Your task to perform on an android device: Find coffee shops on Maps Image 0: 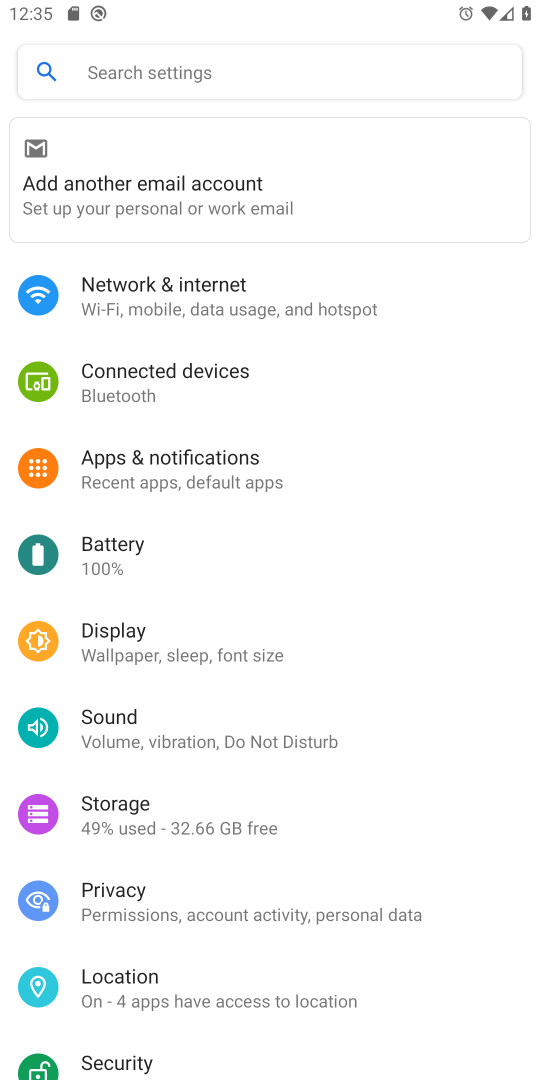
Step 0: press home button
Your task to perform on an android device: Find coffee shops on Maps Image 1: 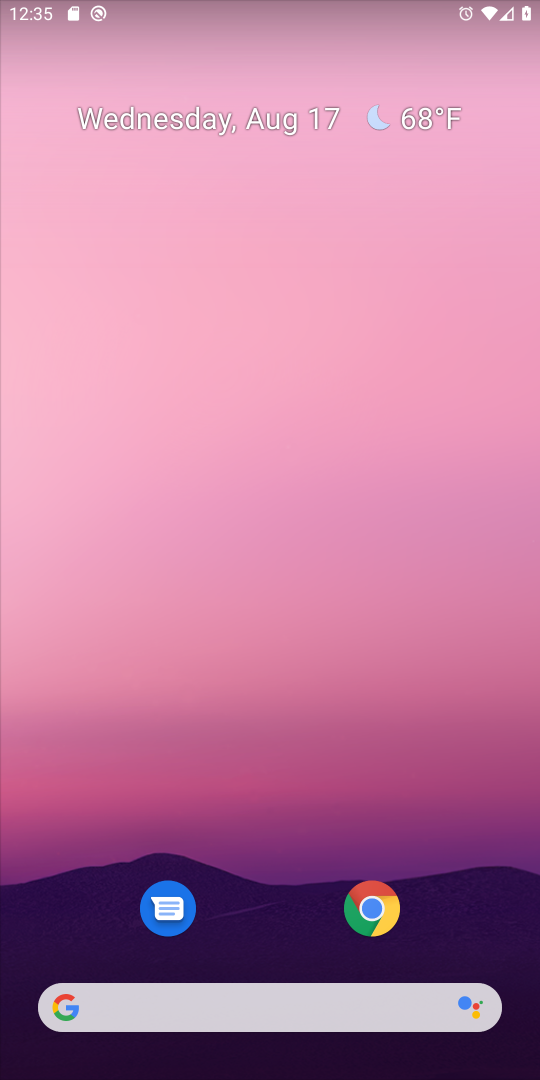
Step 1: drag from (273, 901) to (273, 449)
Your task to perform on an android device: Find coffee shops on Maps Image 2: 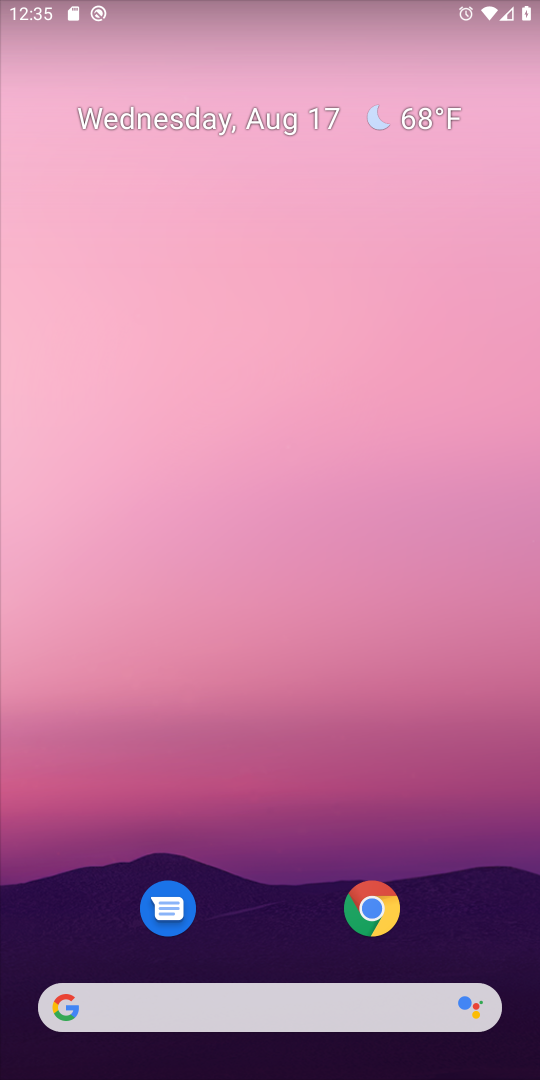
Step 2: drag from (283, 901) to (284, 267)
Your task to perform on an android device: Find coffee shops on Maps Image 3: 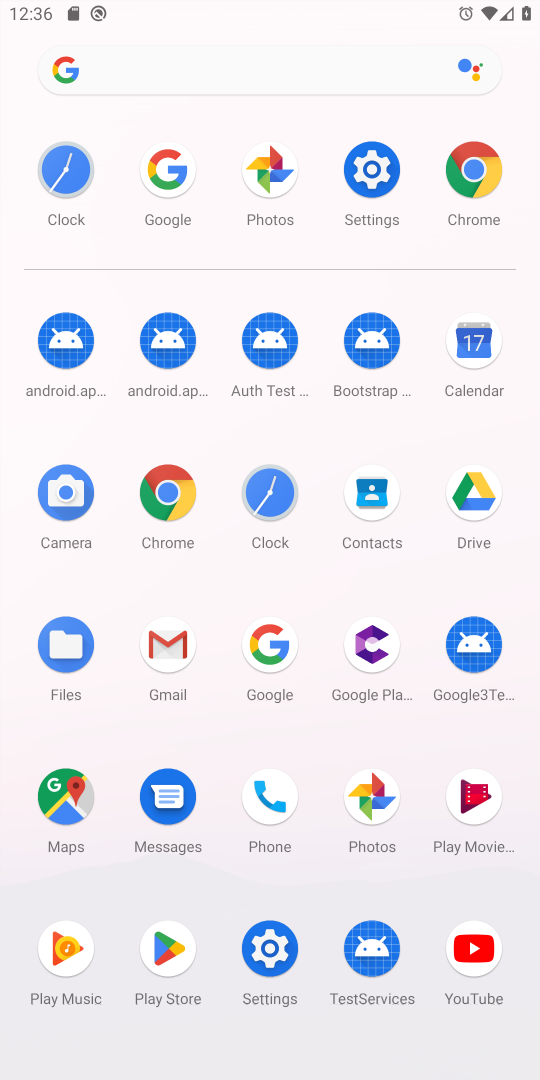
Step 3: click (76, 786)
Your task to perform on an android device: Find coffee shops on Maps Image 4: 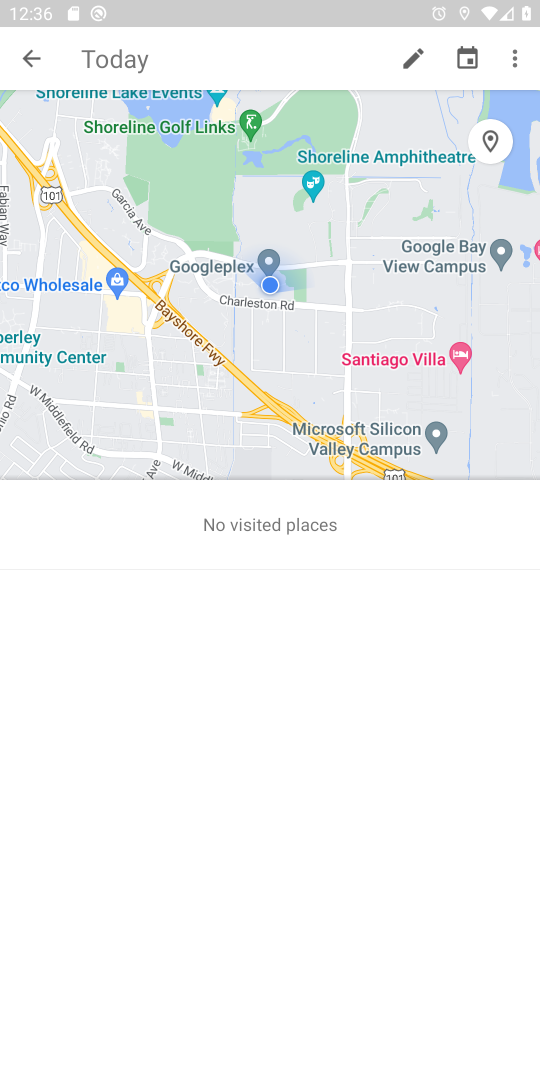
Step 4: click (27, 58)
Your task to perform on an android device: Find coffee shops on Maps Image 5: 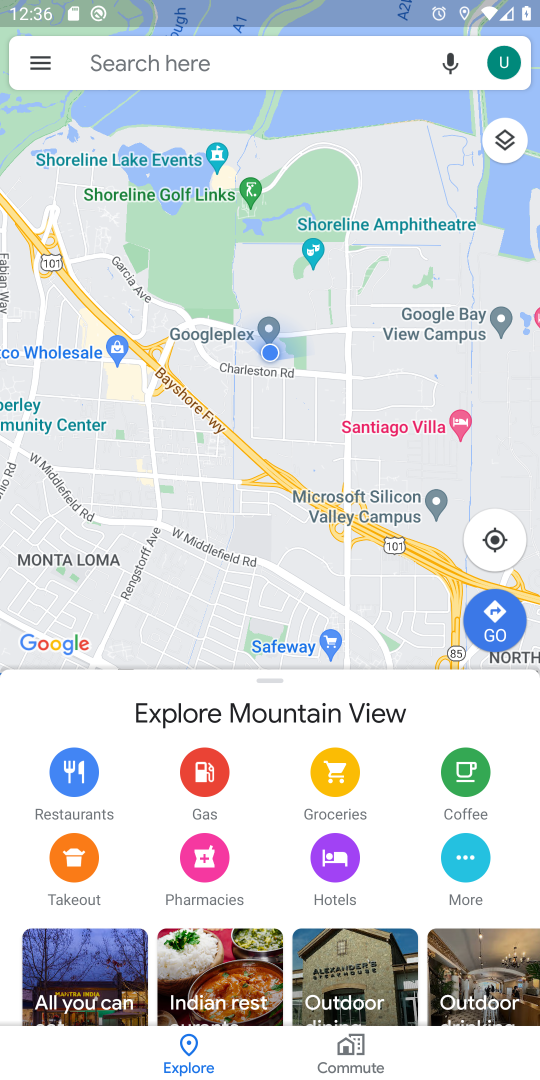
Step 5: click (323, 53)
Your task to perform on an android device: Find coffee shops on Maps Image 6: 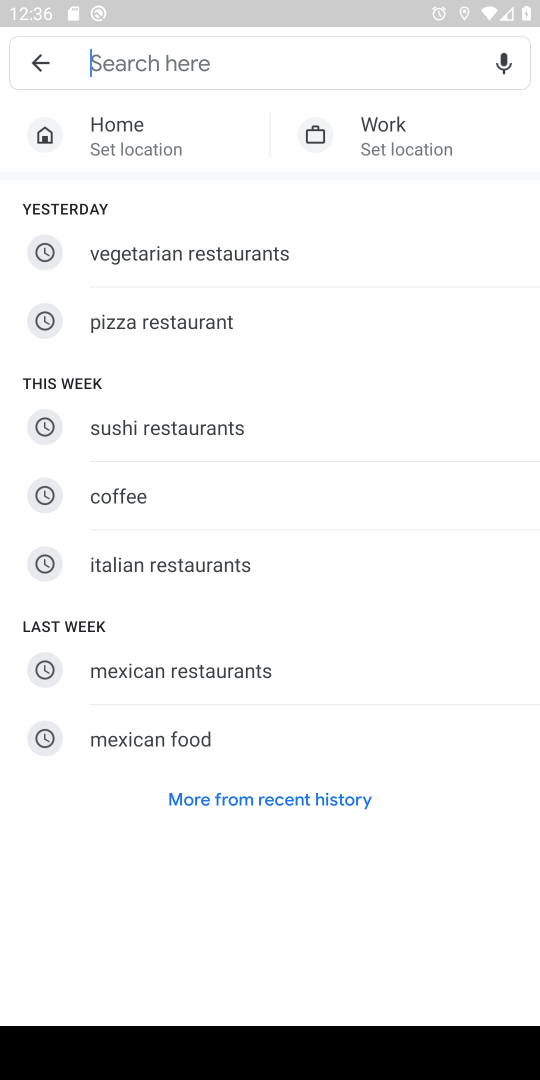
Step 6: type "coffee shops"
Your task to perform on an android device: Find coffee shops on Maps Image 7: 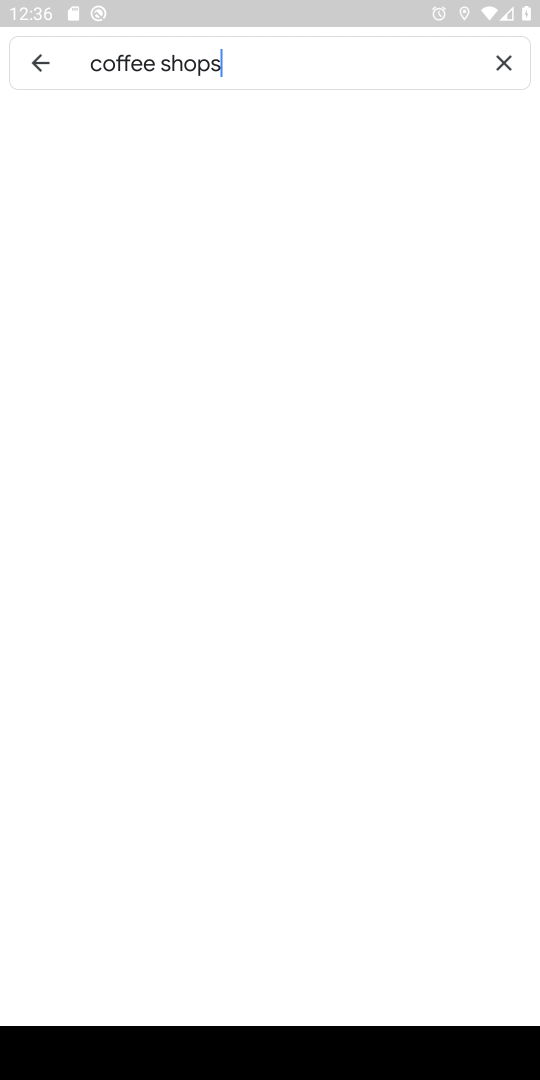
Step 7: type ""
Your task to perform on an android device: Find coffee shops on Maps Image 8: 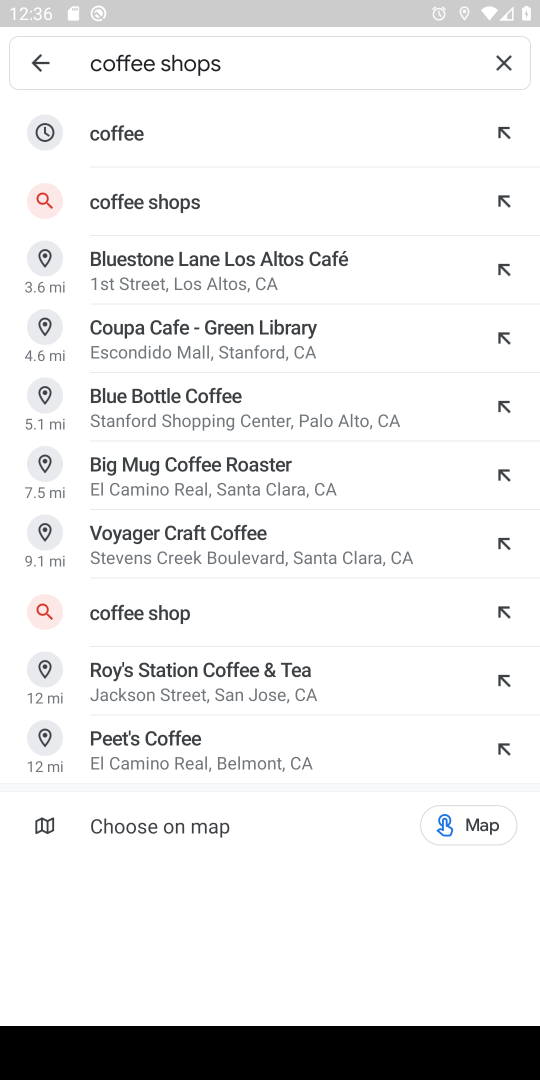
Step 8: click (163, 210)
Your task to perform on an android device: Find coffee shops on Maps Image 9: 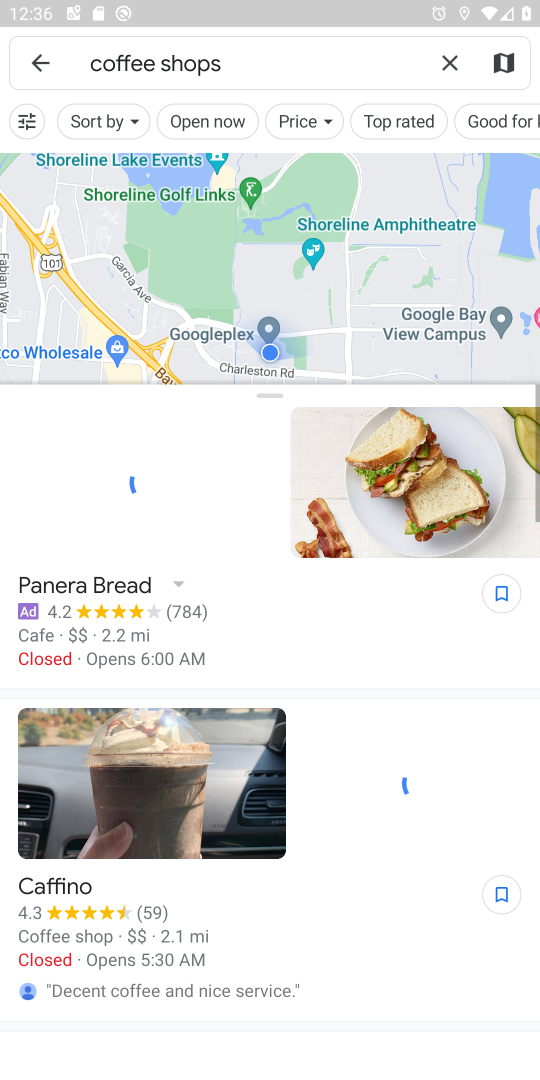
Step 9: task complete